Your task to perform on an android device: turn off location history Image 0: 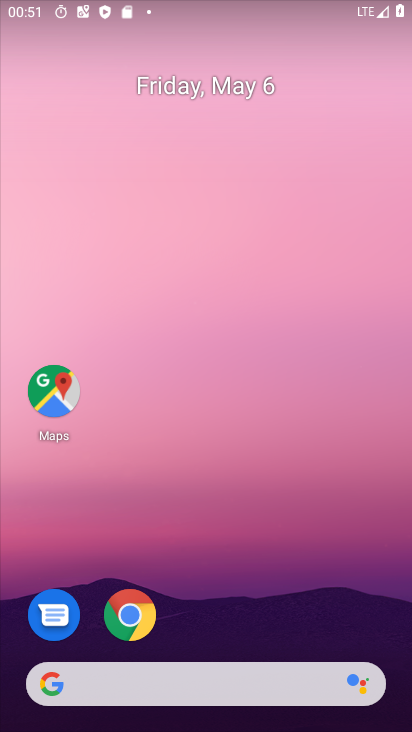
Step 0: drag from (303, 115) to (323, 12)
Your task to perform on an android device: turn off location history Image 1: 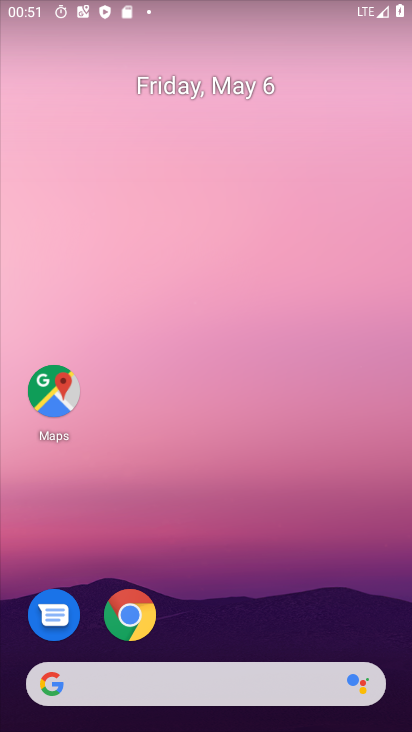
Step 1: drag from (192, 635) to (257, 31)
Your task to perform on an android device: turn off location history Image 2: 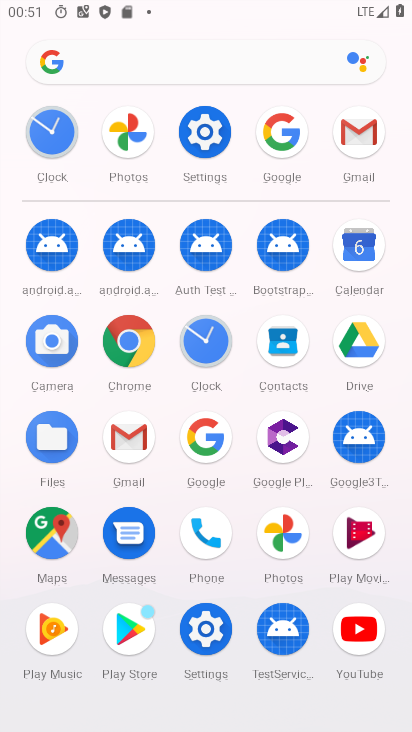
Step 2: click (210, 131)
Your task to perform on an android device: turn off location history Image 3: 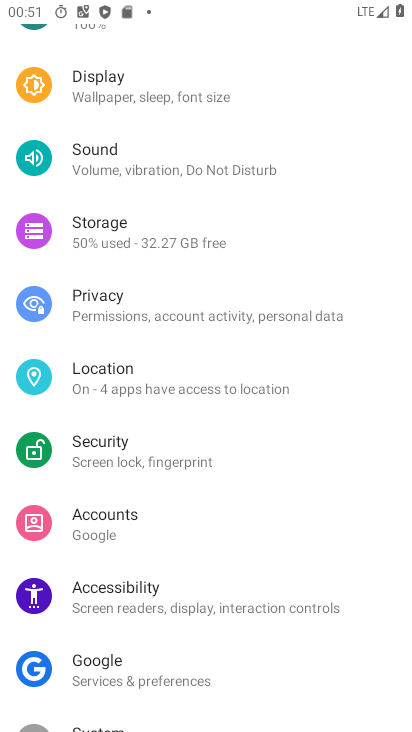
Step 3: click (135, 381)
Your task to perform on an android device: turn off location history Image 4: 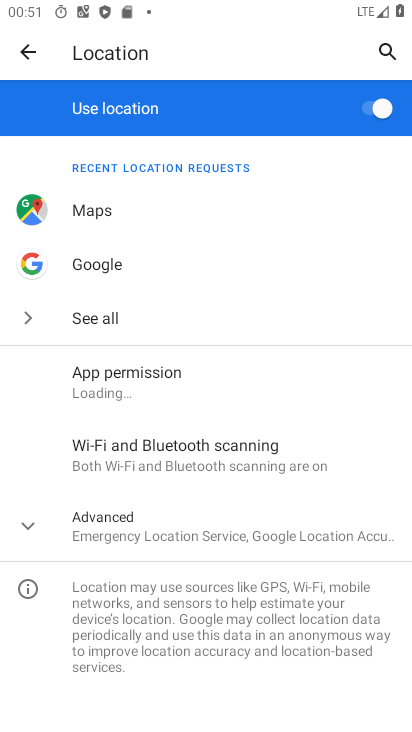
Step 4: click (113, 528)
Your task to perform on an android device: turn off location history Image 5: 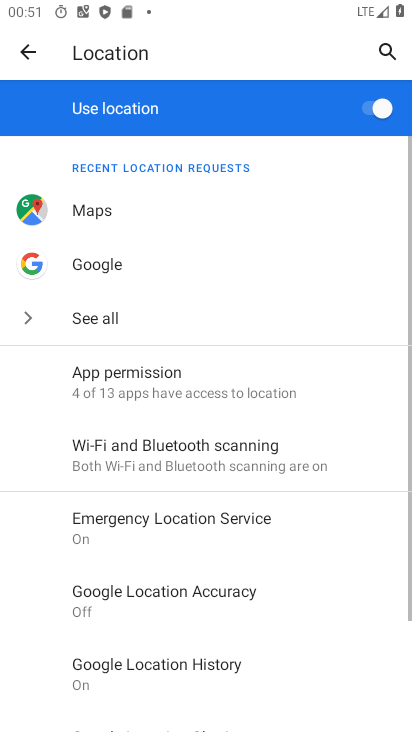
Step 5: drag from (223, 501) to (272, 161)
Your task to perform on an android device: turn off location history Image 6: 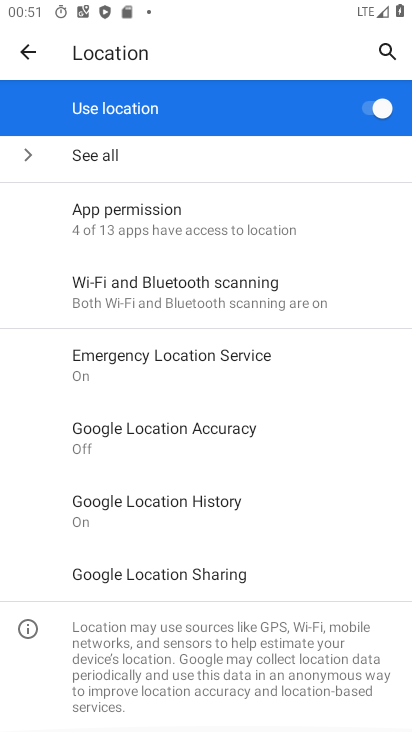
Step 6: click (156, 504)
Your task to perform on an android device: turn off location history Image 7: 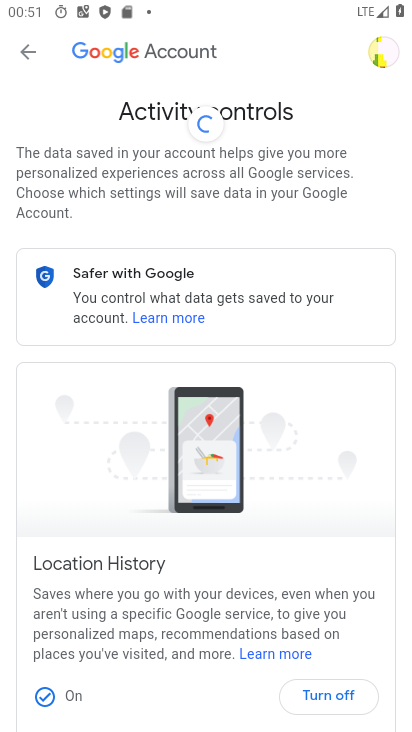
Step 7: click (329, 693)
Your task to perform on an android device: turn off location history Image 8: 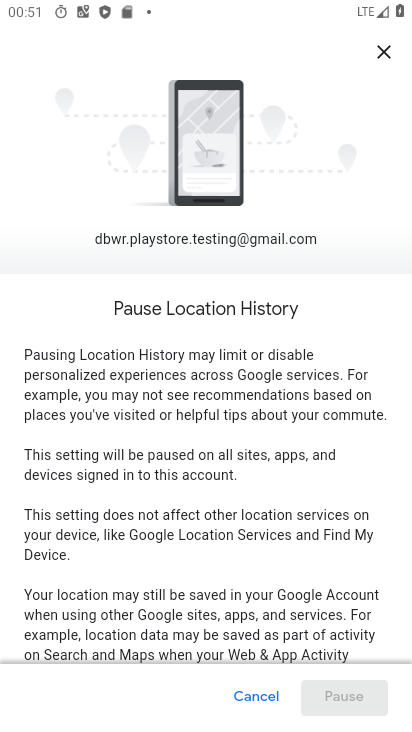
Step 8: drag from (327, 563) to (358, 38)
Your task to perform on an android device: turn off location history Image 9: 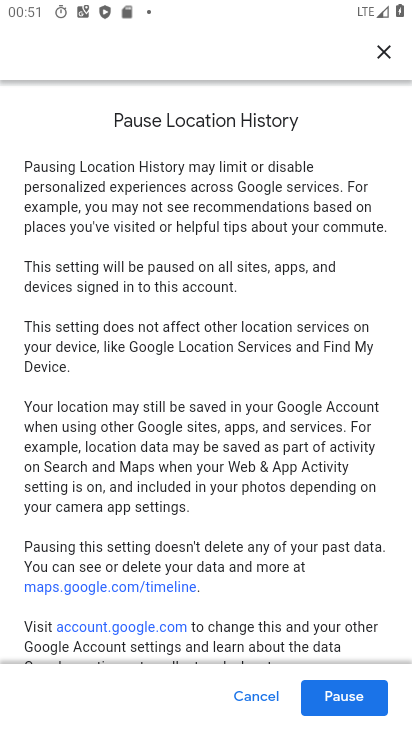
Step 9: click (346, 706)
Your task to perform on an android device: turn off location history Image 10: 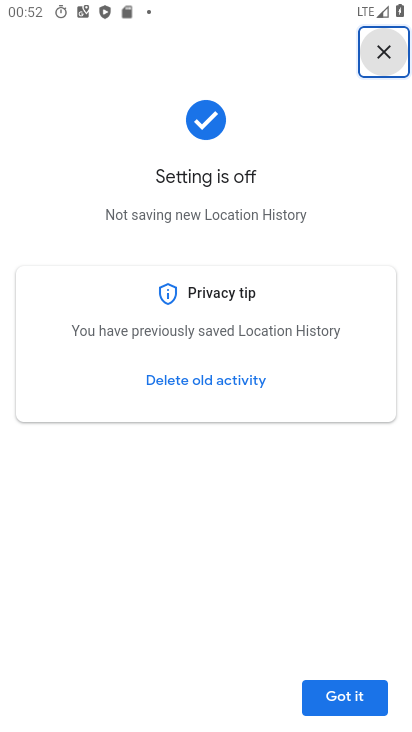
Step 10: click (345, 705)
Your task to perform on an android device: turn off location history Image 11: 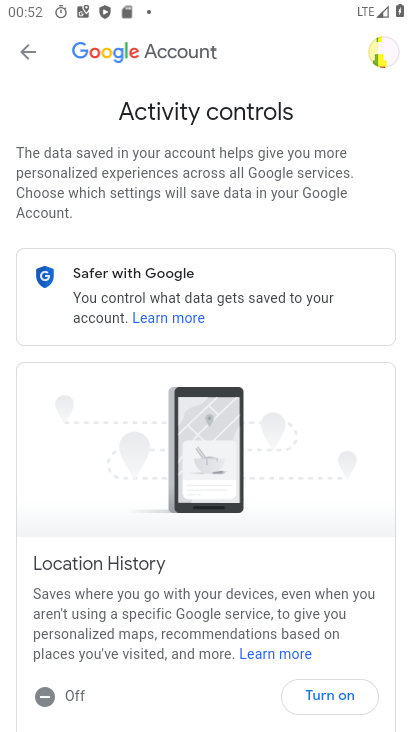
Step 11: task complete